Your task to perform on an android device: Open eBay Image 0: 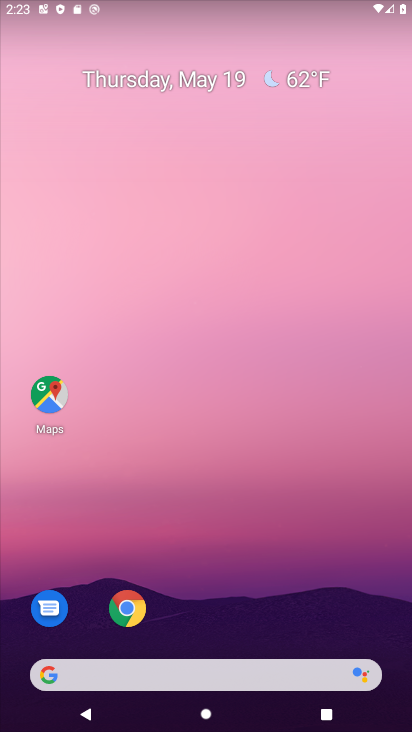
Step 0: click (140, 600)
Your task to perform on an android device: Open eBay Image 1: 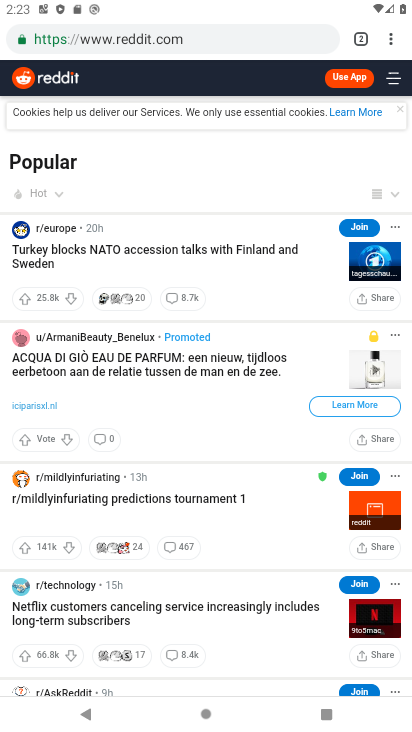
Step 1: click (268, 33)
Your task to perform on an android device: Open eBay Image 2: 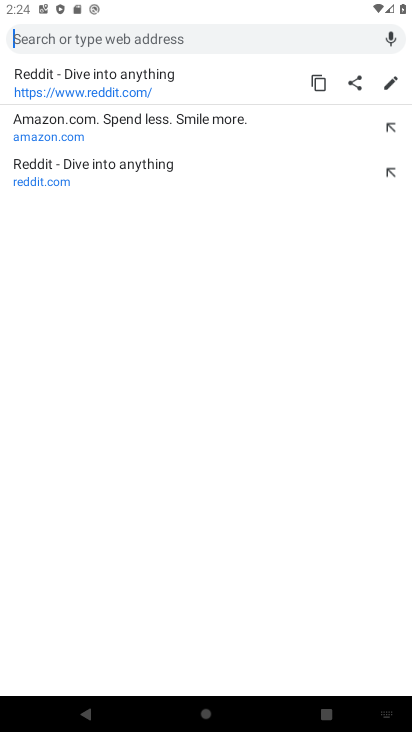
Step 2: type "ebay.com"
Your task to perform on an android device: Open eBay Image 3: 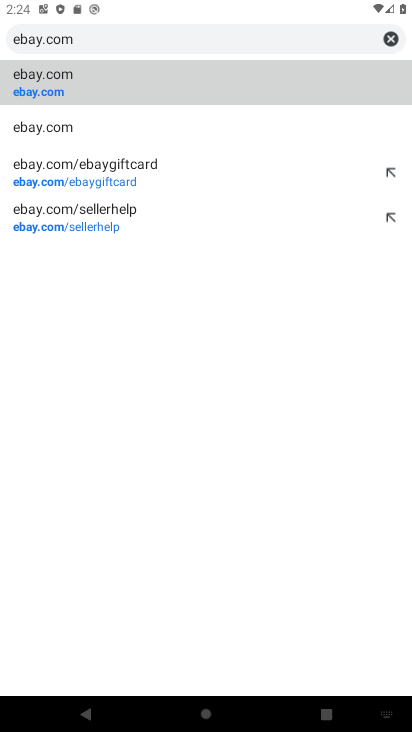
Step 3: click (88, 97)
Your task to perform on an android device: Open eBay Image 4: 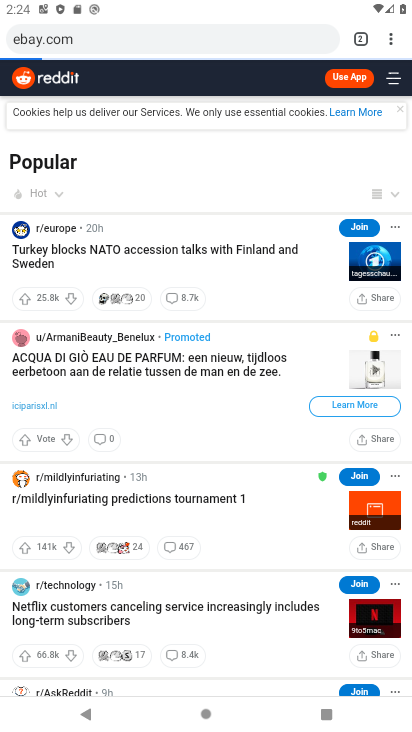
Step 4: task complete